Your task to perform on an android device: What's the weather going to be this weekend? Image 0: 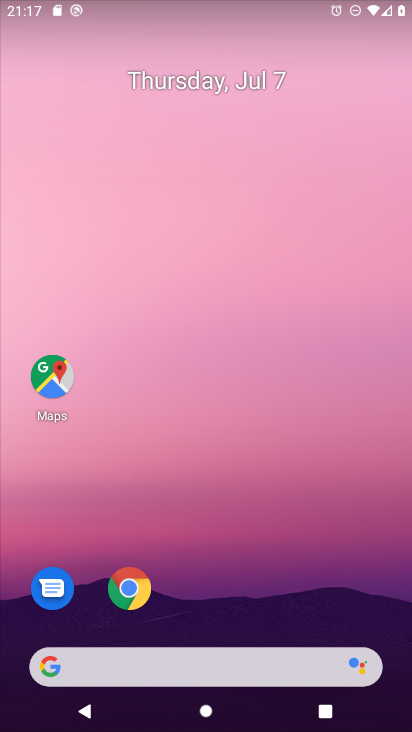
Step 0: drag from (270, 592) to (277, 272)
Your task to perform on an android device: What's the weather going to be this weekend? Image 1: 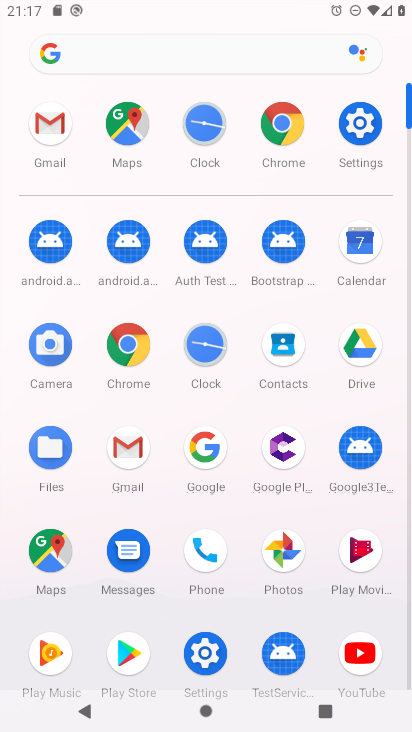
Step 1: click (346, 249)
Your task to perform on an android device: What's the weather going to be this weekend? Image 2: 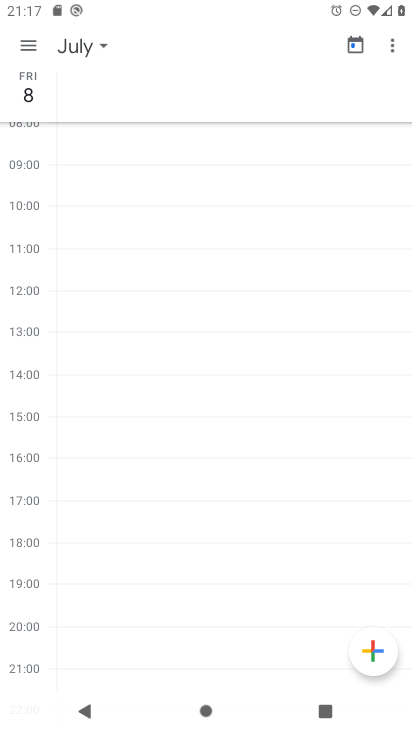
Step 2: click (32, 32)
Your task to perform on an android device: What's the weather going to be this weekend? Image 3: 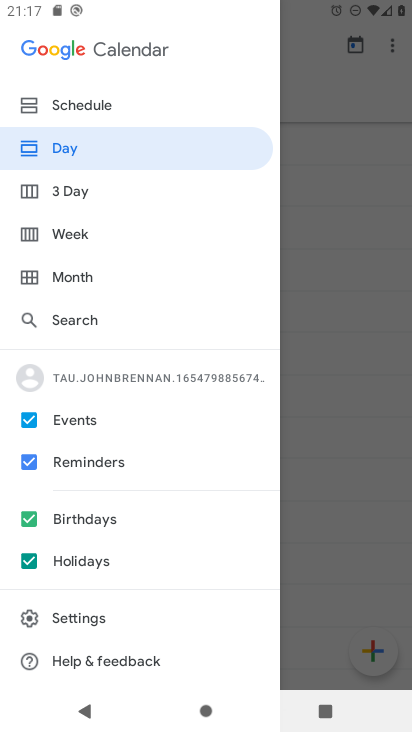
Step 3: click (123, 273)
Your task to perform on an android device: What's the weather going to be this weekend? Image 4: 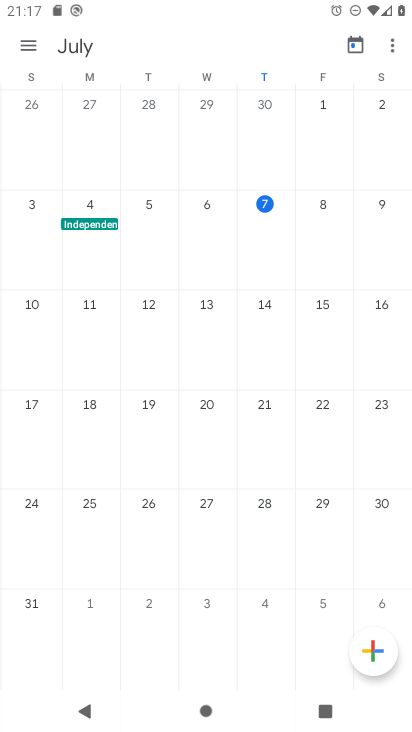
Step 4: click (384, 236)
Your task to perform on an android device: What's the weather going to be this weekend? Image 5: 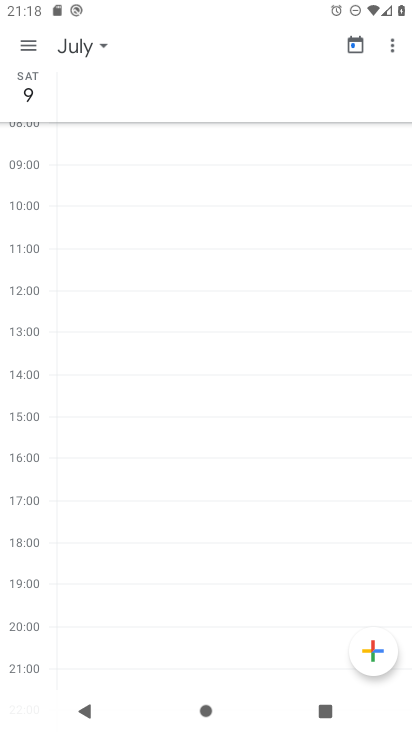
Step 5: task complete